Your task to perform on an android device: Open internet settings Image 0: 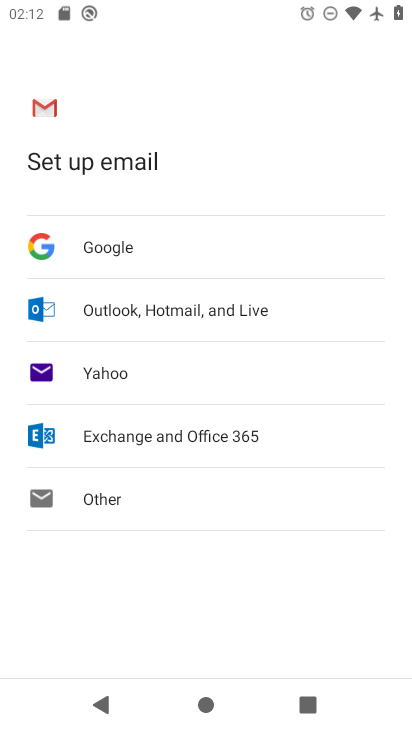
Step 0: press home button
Your task to perform on an android device: Open internet settings Image 1: 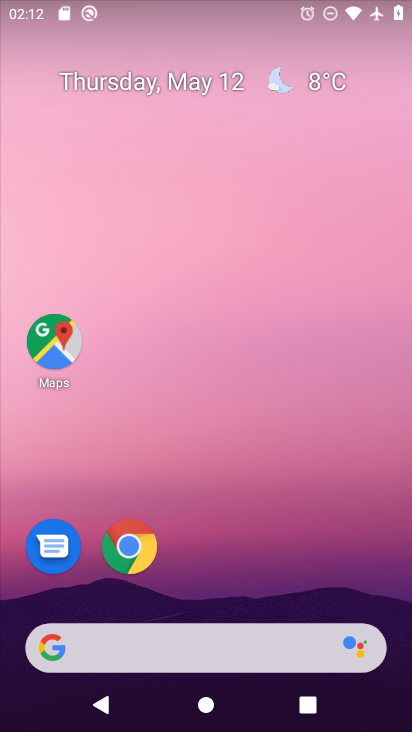
Step 1: drag from (172, 646) to (300, 154)
Your task to perform on an android device: Open internet settings Image 2: 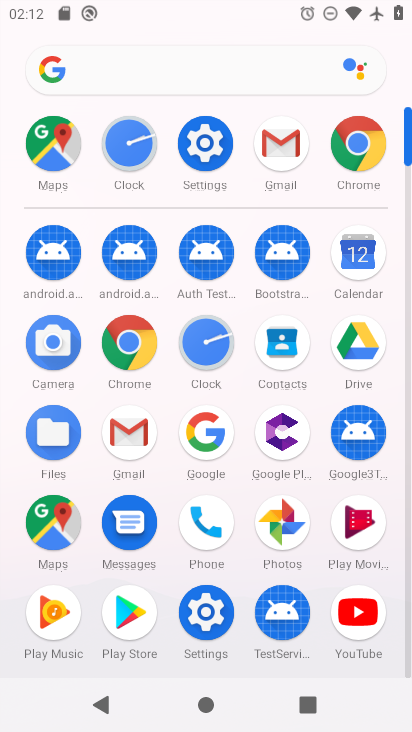
Step 2: click (211, 156)
Your task to perform on an android device: Open internet settings Image 3: 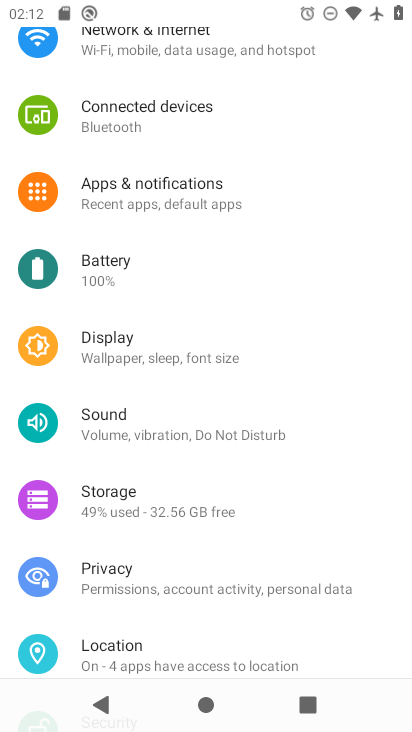
Step 3: drag from (281, 160) to (228, 498)
Your task to perform on an android device: Open internet settings Image 4: 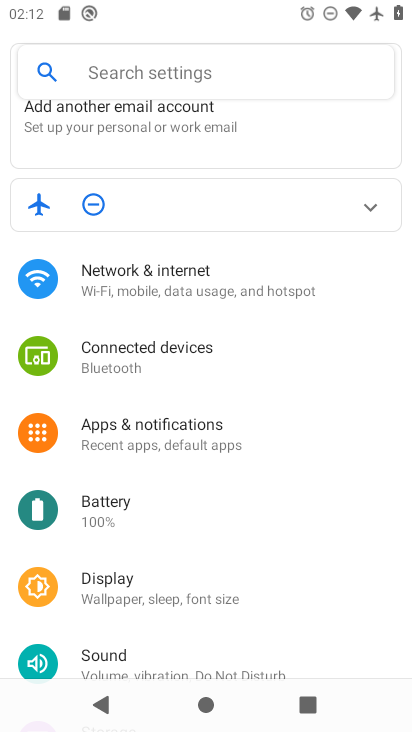
Step 4: click (167, 280)
Your task to perform on an android device: Open internet settings Image 5: 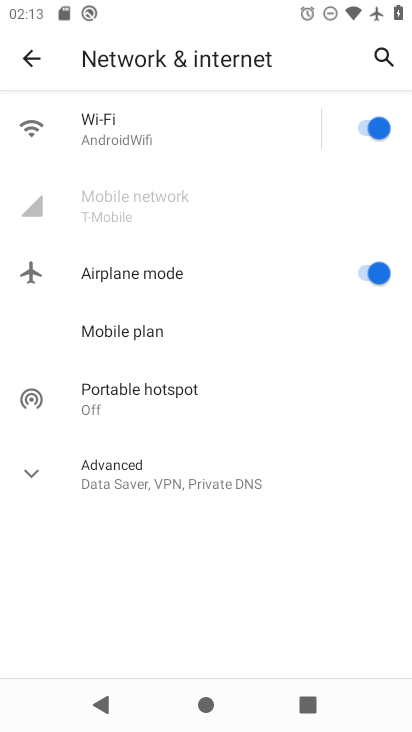
Step 5: task complete